Your task to perform on an android device: turn off notifications in google photos Image 0: 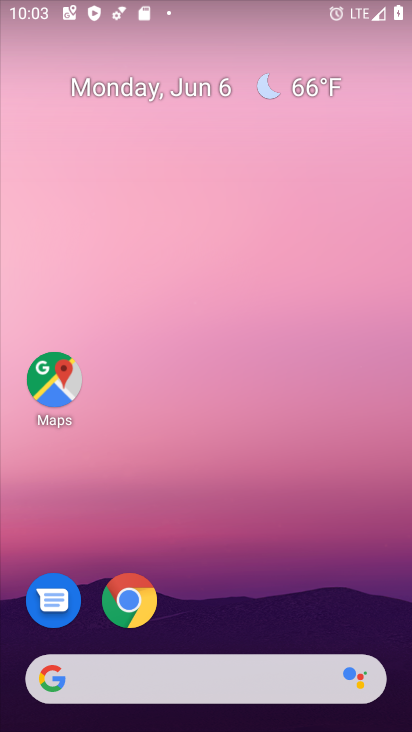
Step 0: drag from (6, 730) to (256, 189)
Your task to perform on an android device: turn off notifications in google photos Image 1: 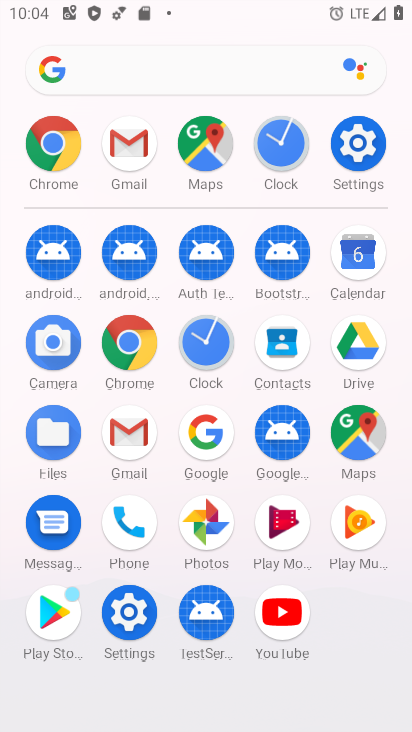
Step 1: click (349, 167)
Your task to perform on an android device: turn off notifications in google photos Image 2: 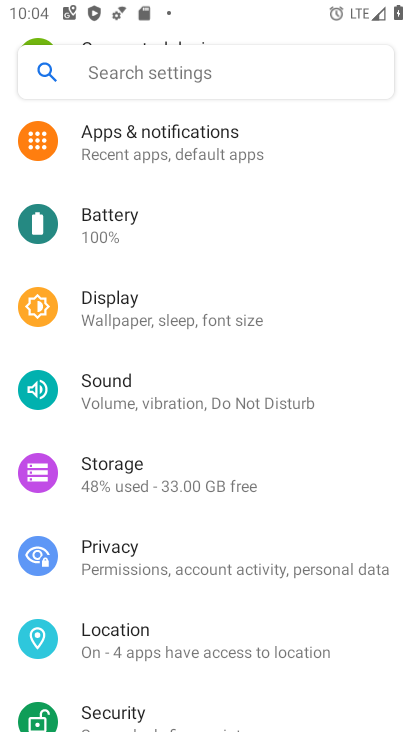
Step 2: click (184, 156)
Your task to perform on an android device: turn off notifications in google photos Image 3: 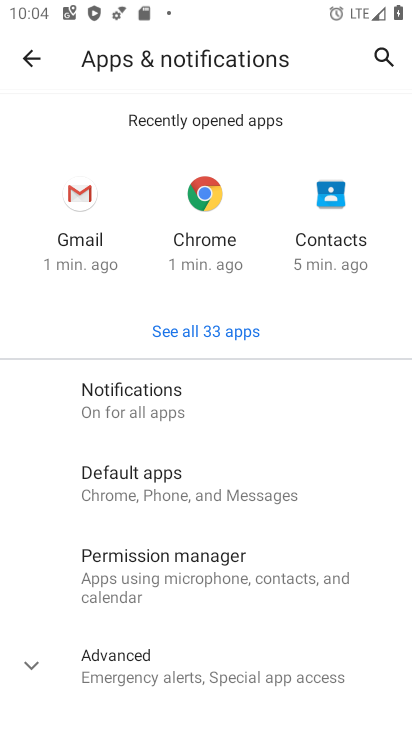
Step 3: press home button
Your task to perform on an android device: turn off notifications in google photos Image 4: 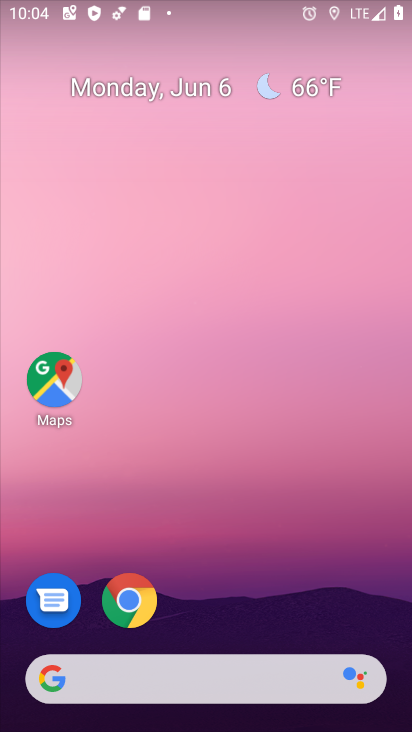
Step 4: drag from (94, 427) to (225, 113)
Your task to perform on an android device: turn off notifications in google photos Image 5: 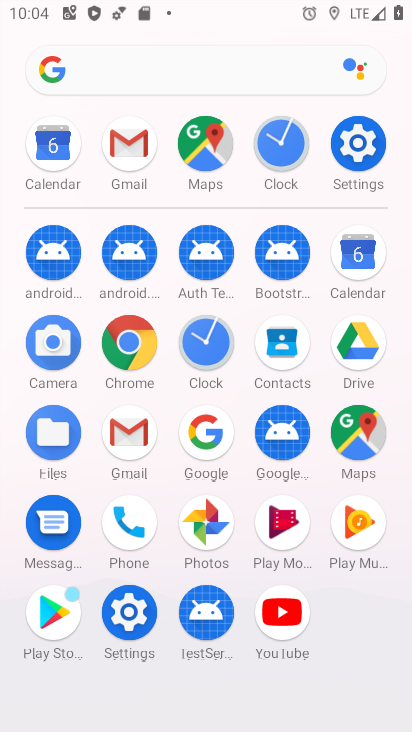
Step 5: click (196, 522)
Your task to perform on an android device: turn off notifications in google photos Image 6: 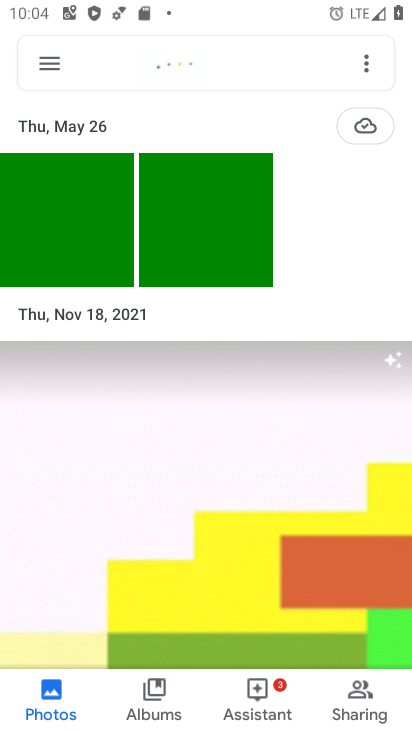
Step 6: click (44, 71)
Your task to perform on an android device: turn off notifications in google photos Image 7: 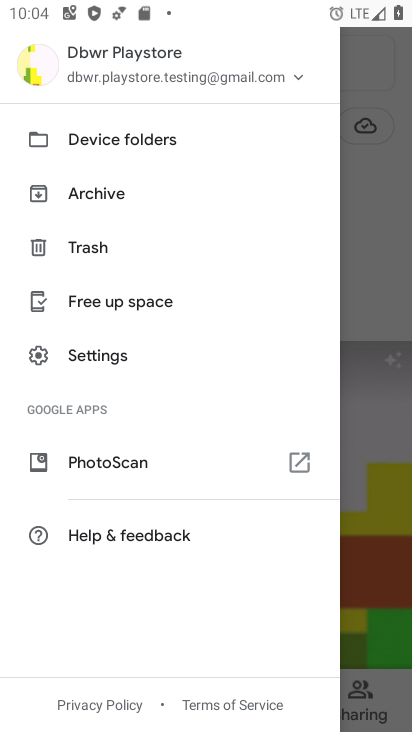
Step 7: click (116, 359)
Your task to perform on an android device: turn off notifications in google photos Image 8: 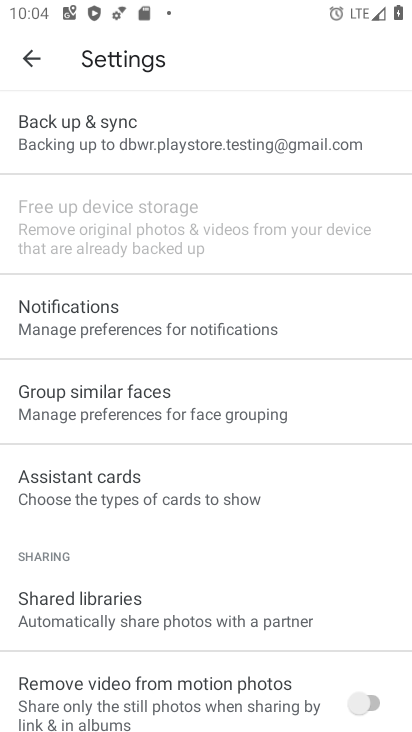
Step 8: click (72, 311)
Your task to perform on an android device: turn off notifications in google photos Image 9: 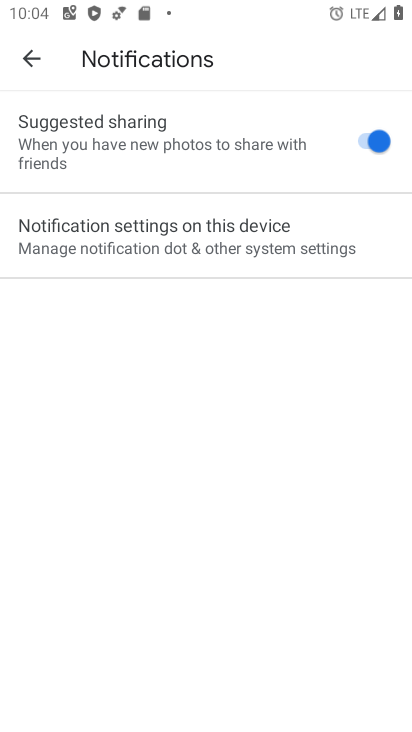
Step 9: click (343, 229)
Your task to perform on an android device: turn off notifications in google photos Image 10: 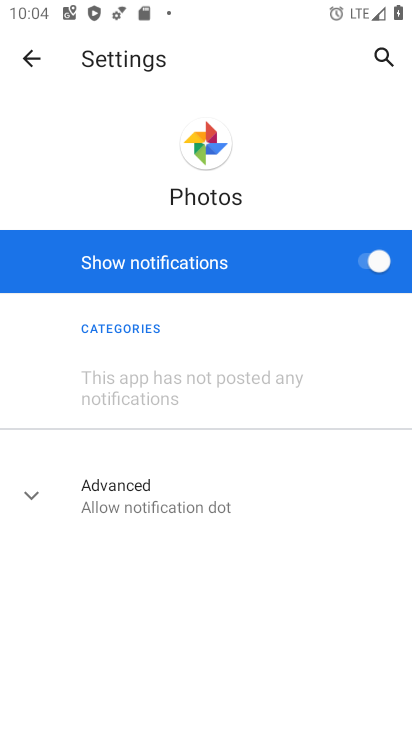
Step 10: click (381, 264)
Your task to perform on an android device: turn off notifications in google photos Image 11: 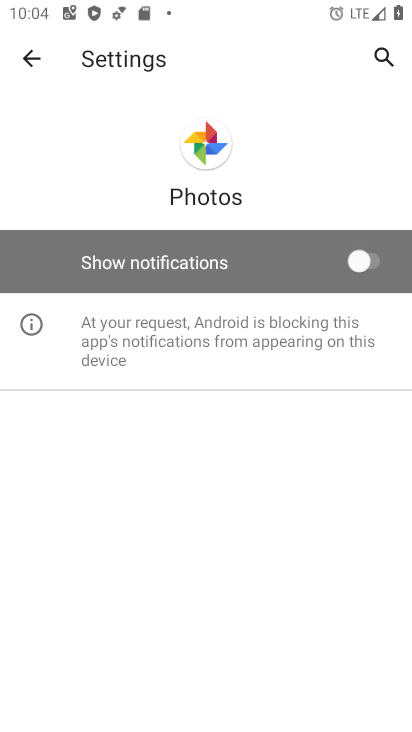
Step 11: task complete